Your task to perform on an android device: Go to wifi settings Image 0: 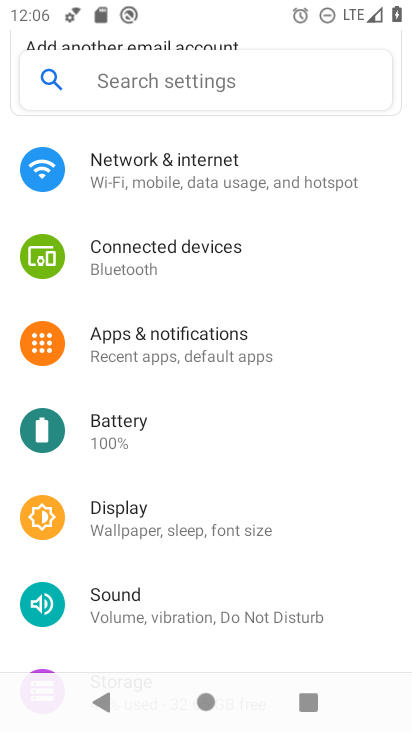
Step 0: click (276, 173)
Your task to perform on an android device: Go to wifi settings Image 1: 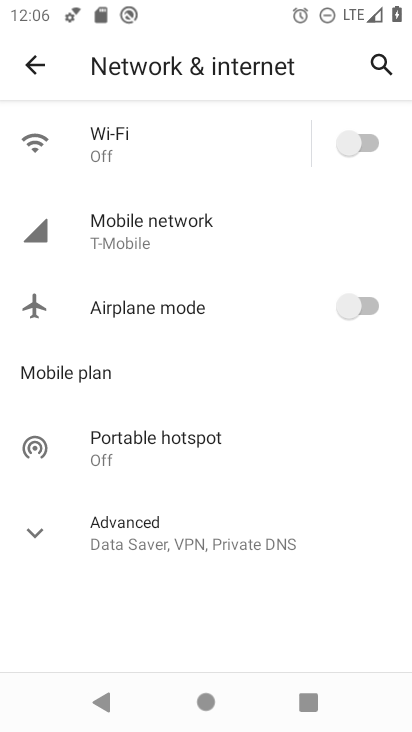
Step 1: click (210, 146)
Your task to perform on an android device: Go to wifi settings Image 2: 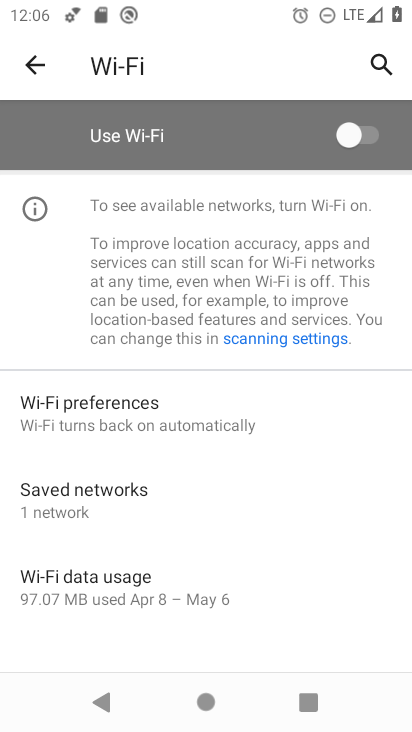
Step 2: task complete